Your task to perform on an android device: Find coffee shops on Maps Image 0: 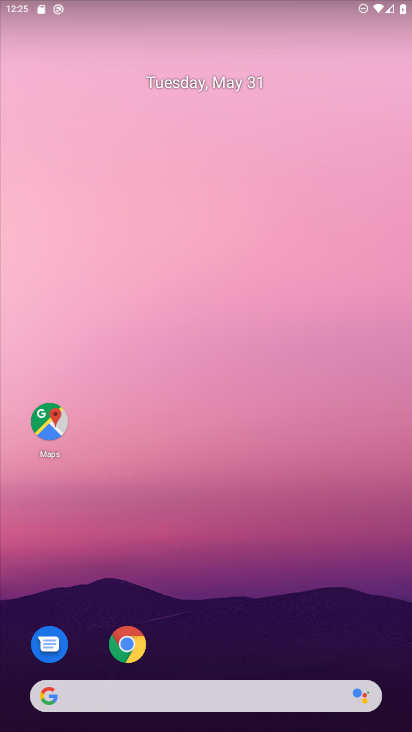
Step 0: drag from (199, 641) to (196, 110)
Your task to perform on an android device: Find coffee shops on Maps Image 1: 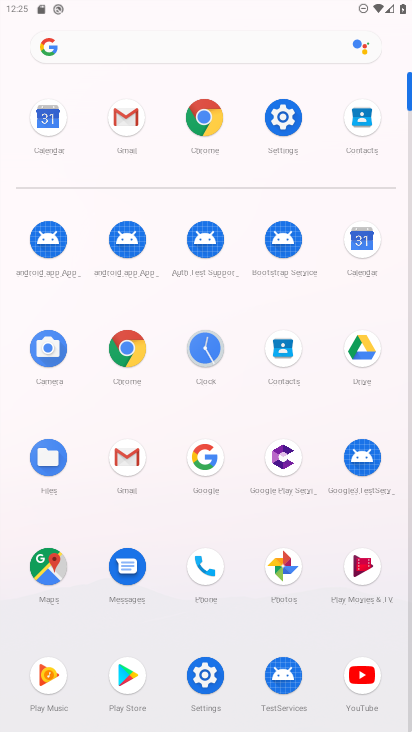
Step 1: drag from (229, 624) to (255, 171)
Your task to perform on an android device: Find coffee shops on Maps Image 2: 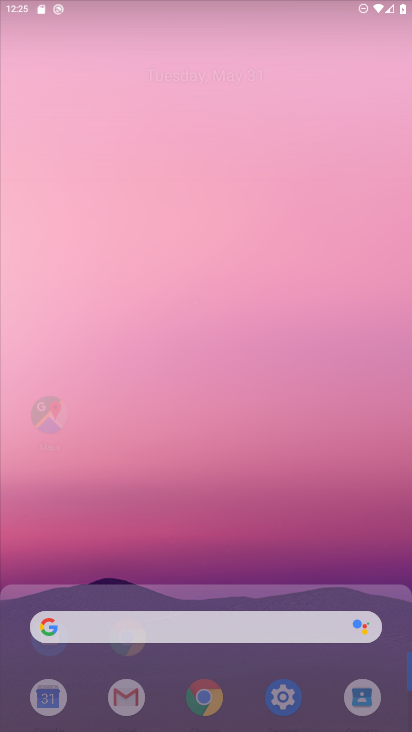
Step 2: click (45, 554)
Your task to perform on an android device: Find coffee shops on Maps Image 3: 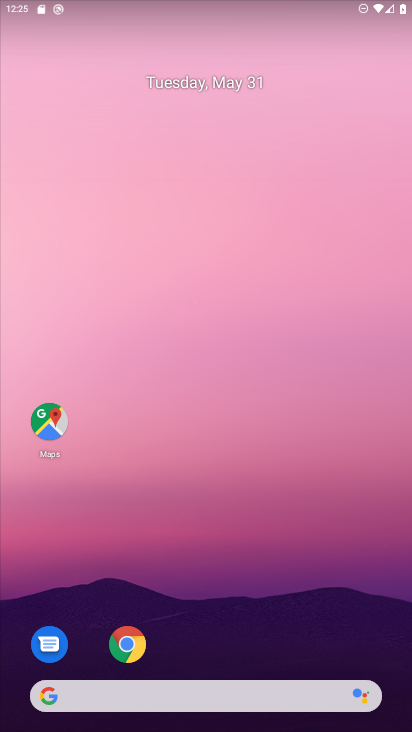
Step 3: click (50, 417)
Your task to perform on an android device: Find coffee shops on Maps Image 4: 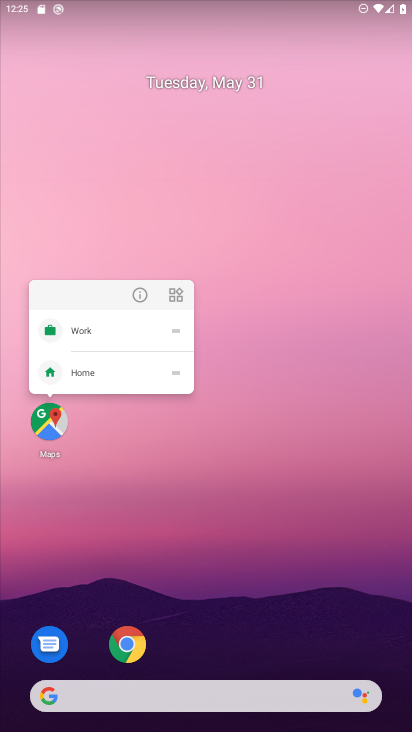
Step 4: click (132, 282)
Your task to perform on an android device: Find coffee shops on Maps Image 5: 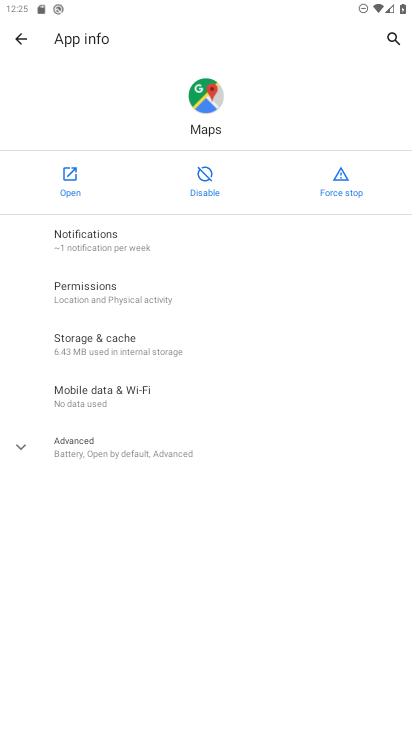
Step 5: click (70, 170)
Your task to perform on an android device: Find coffee shops on Maps Image 6: 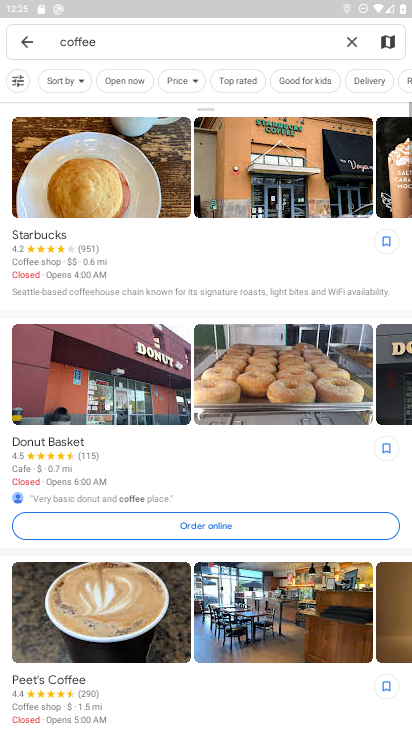
Step 6: task complete